Your task to perform on an android device: turn on location history Image 0: 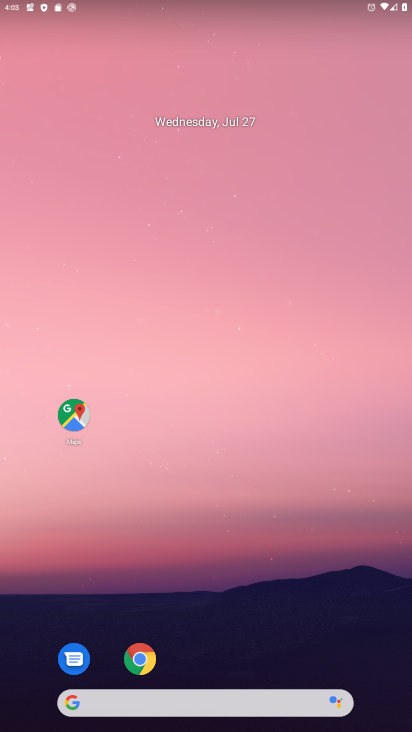
Step 0: drag from (279, 599) to (259, 162)
Your task to perform on an android device: turn on location history Image 1: 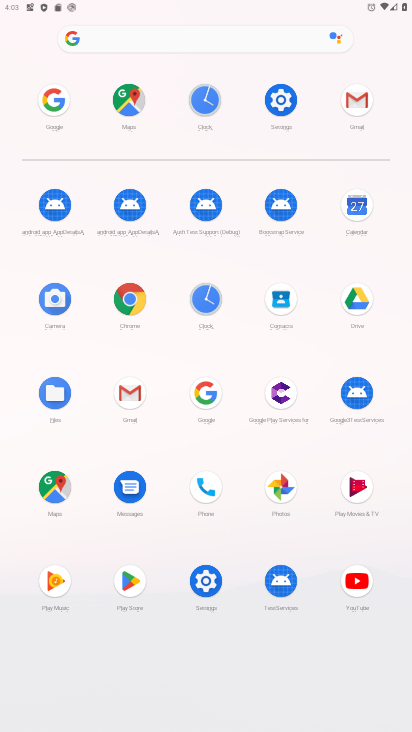
Step 1: click (271, 93)
Your task to perform on an android device: turn on location history Image 2: 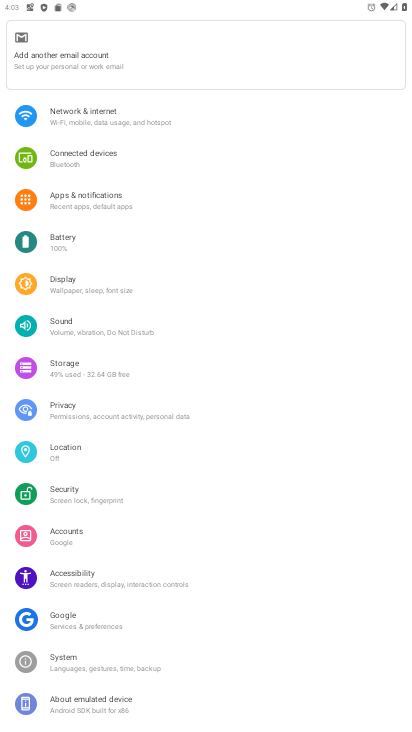
Step 2: click (69, 445)
Your task to perform on an android device: turn on location history Image 3: 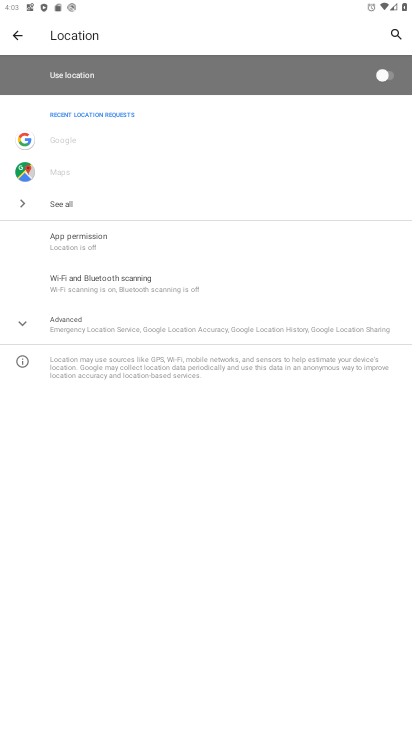
Step 3: click (84, 322)
Your task to perform on an android device: turn on location history Image 4: 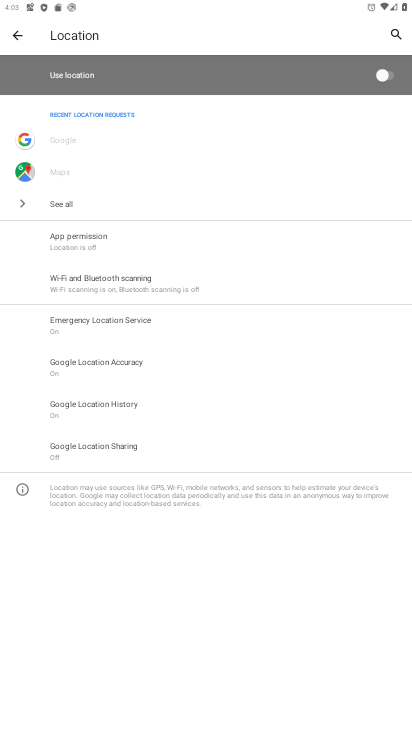
Step 4: click (128, 402)
Your task to perform on an android device: turn on location history Image 5: 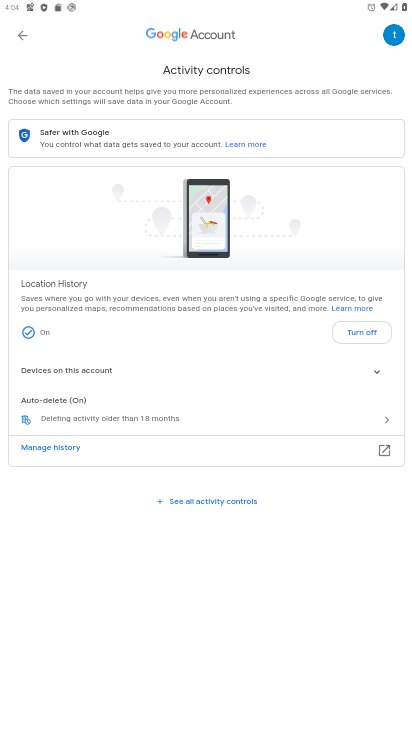
Step 5: task complete